Your task to perform on an android device: turn off notifications in google photos Image 0: 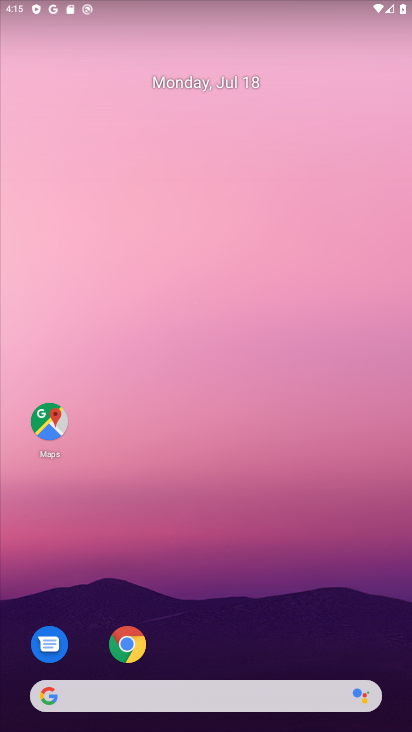
Step 0: drag from (357, 630) to (240, 70)
Your task to perform on an android device: turn off notifications in google photos Image 1: 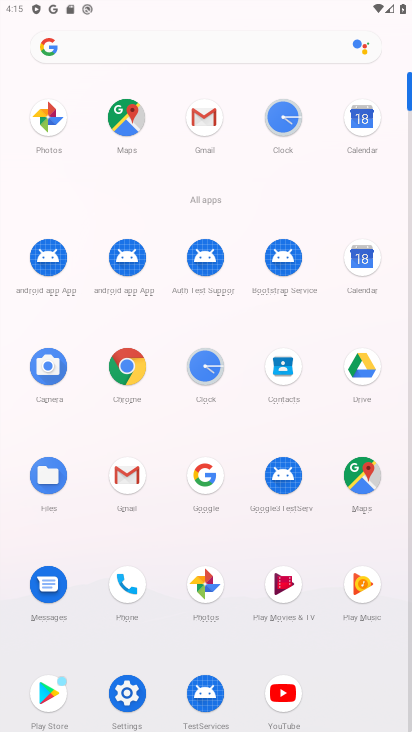
Step 1: click (48, 115)
Your task to perform on an android device: turn off notifications in google photos Image 2: 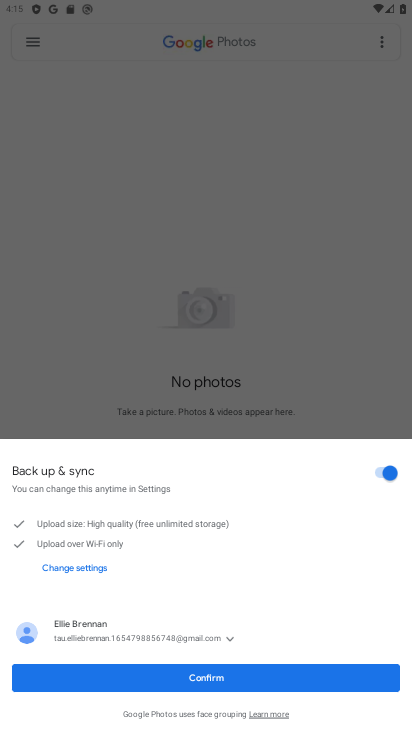
Step 2: click (220, 684)
Your task to perform on an android device: turn off notifications in google photos Image 3: 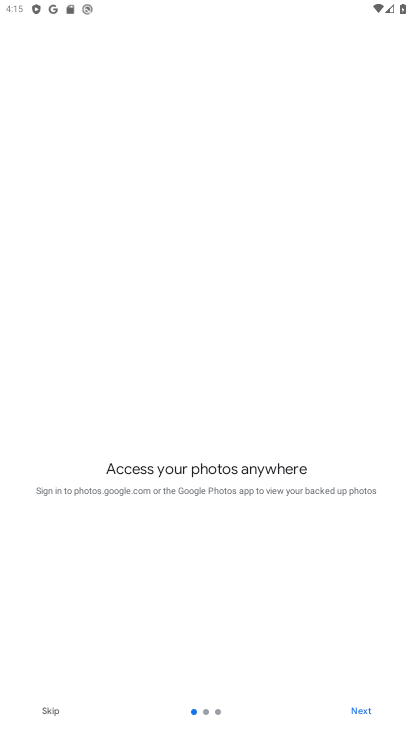
Step 3: click (369, 723)
Your task to perform on an android device: turn off notifications in google photos Image 4: 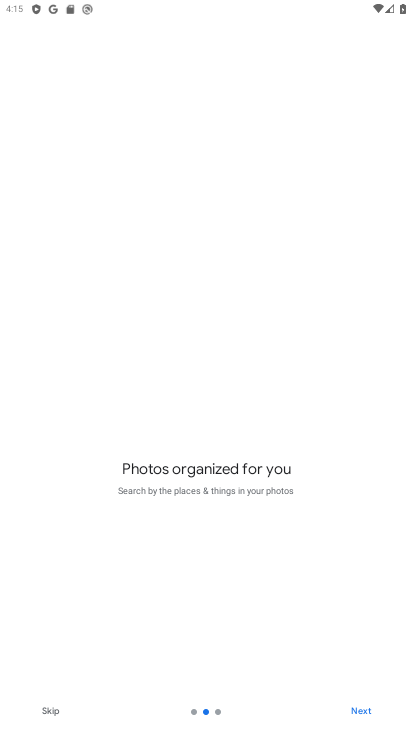
Step 4: click (364, 714)
Your task to perform on an android device: turn off notifications in google photos Image 5: 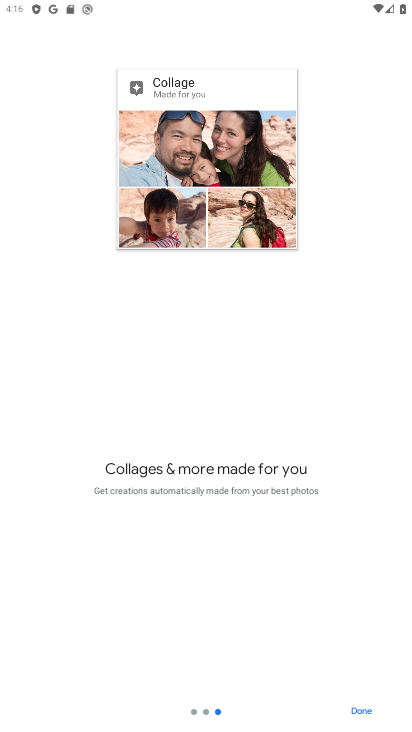
Step 5: click (364, 714)
Your task to perform on an android device: turn off notifications in google photos Image 6: 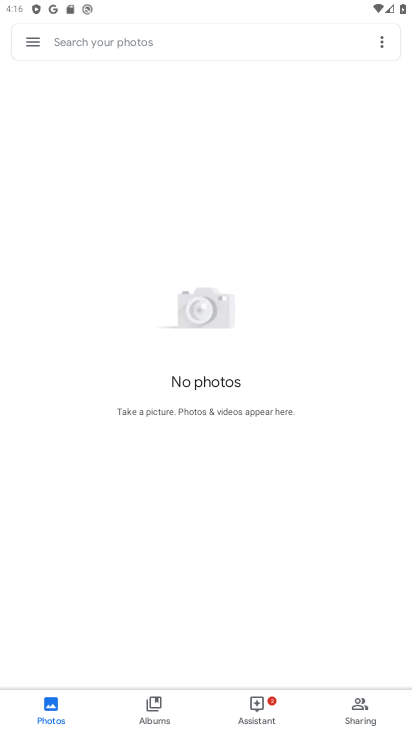
Step 6: click (28, 46)
Your task to perform on an android device: turn off notifications in google photos Image 7: 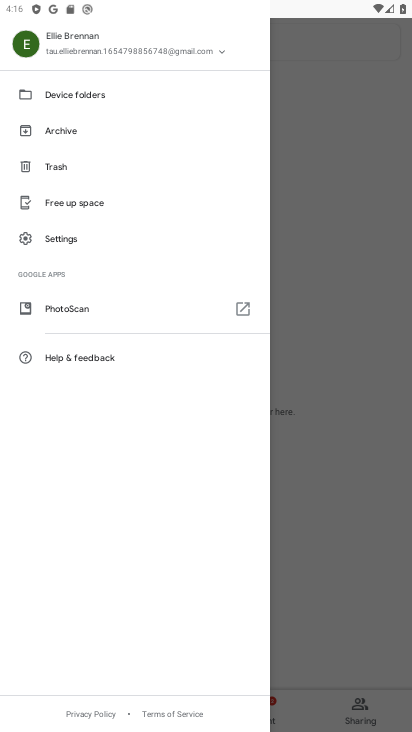
Step 7: click (85, 235)
Your task to perform on an android device: turn off notifications in google photos Image 8: 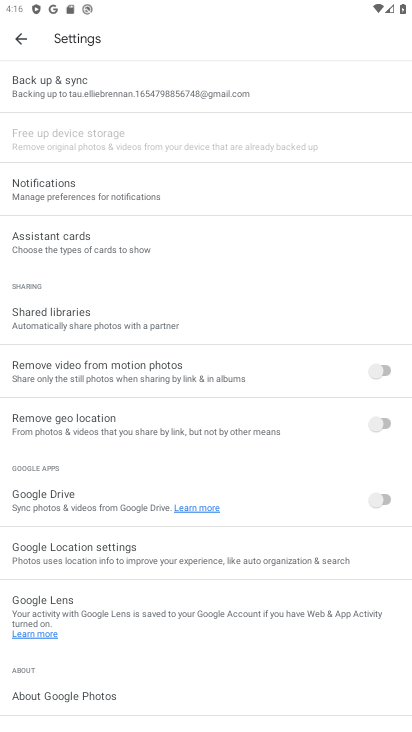
Step 8: click (88, 193)
Your task to perform on an android device: turn off notifications in google photos Image 9: 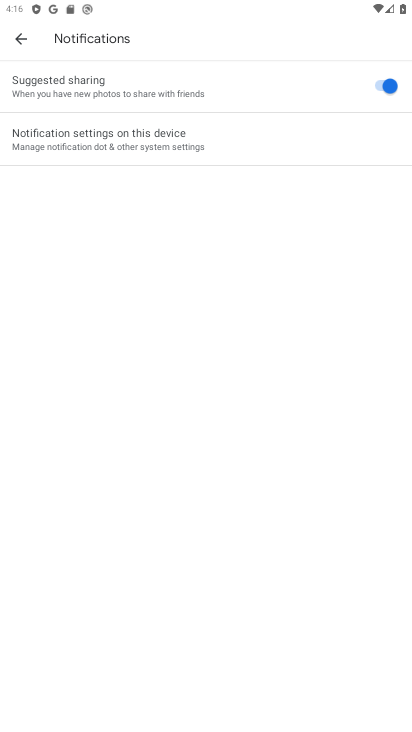
Step 9: click (170, 134)
Your task to perform on an android device: turn off notifications in google photos Image 10: 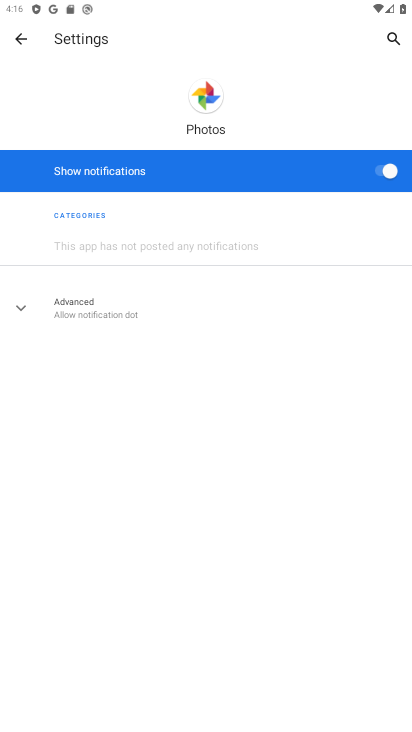
Step 10: click (376, 179)
Your task to perform on an android device: turn off notifications in google photos Image 11: 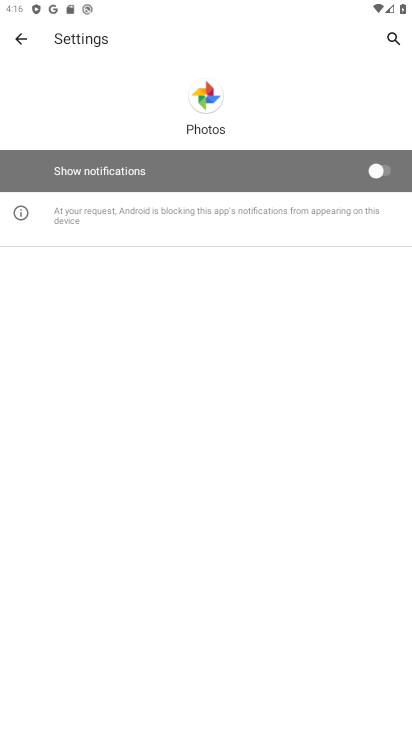
Step 11: task complete